Your task to perform on an android device: Open notification settings Image 0: 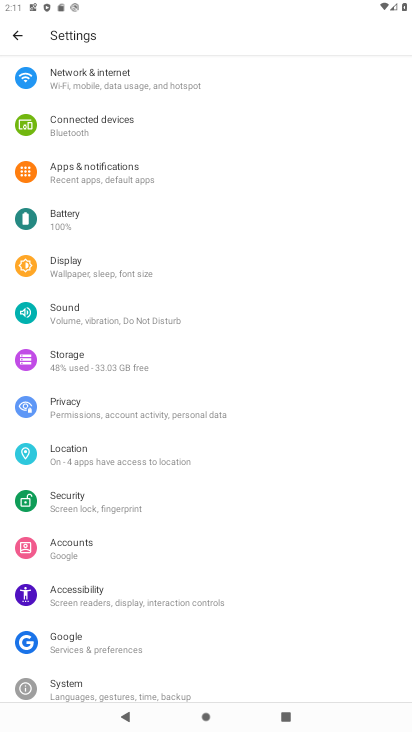
Step 0: press home button
Your task to perform on an android device: Open notification settings Image 1: 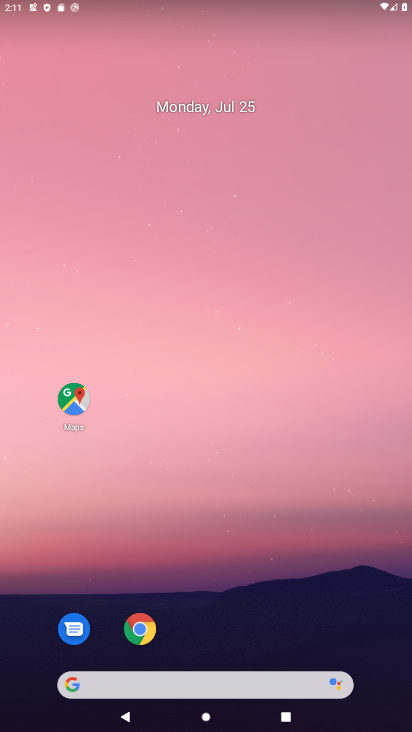
Step 1: drag from (204, 634) to (233, 42)
Your task to perform on an android device: Open notification settings Image 2: 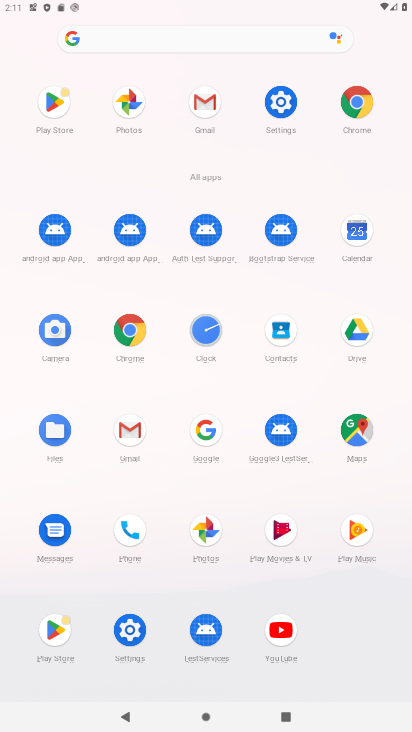
Step 2: click (133, 629)
Your task to perform on an android device: Open notification settings Image 3: 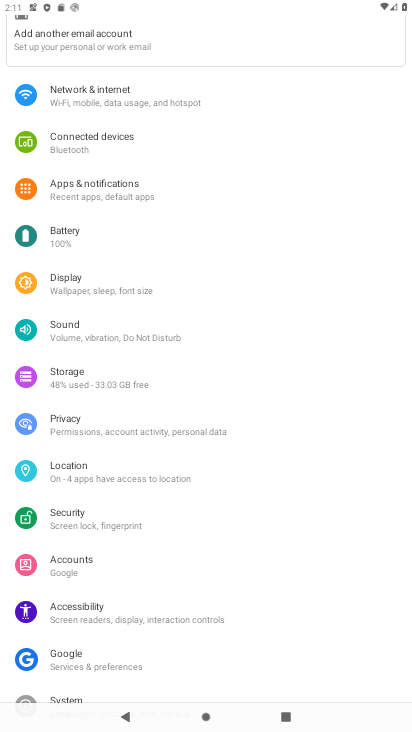
Step 3: click (139, 198)
Your task to perform on an android device: Open notification settings Image 4: 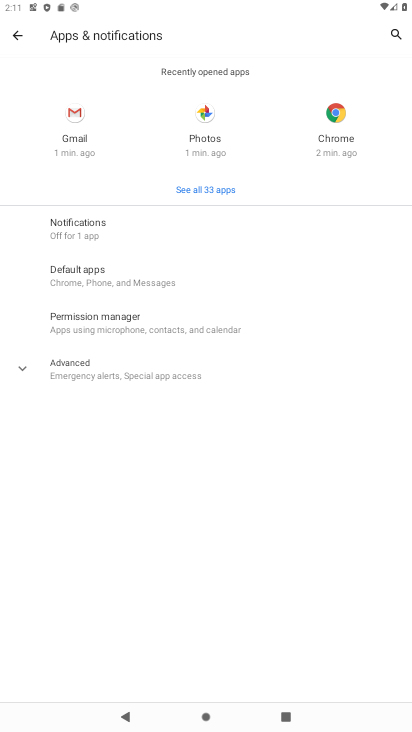
Step 4: click (112, 232)
Your task to perform on an android device: Open notification settings Image 5: 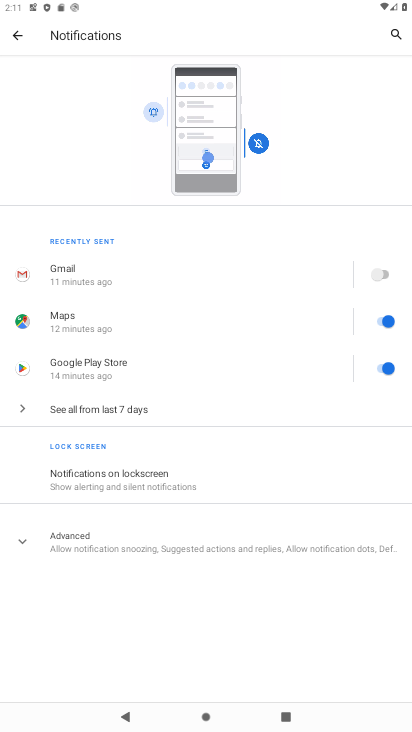
Step 5: click (78, 539)
Your task to perform on an android device: Open notification settings Image 6: 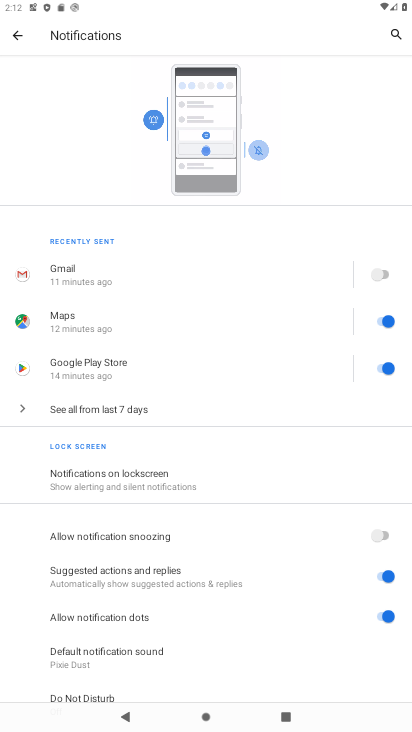
Step 6: task complete